Your task to perform on an android device: set an alarm Image 0: 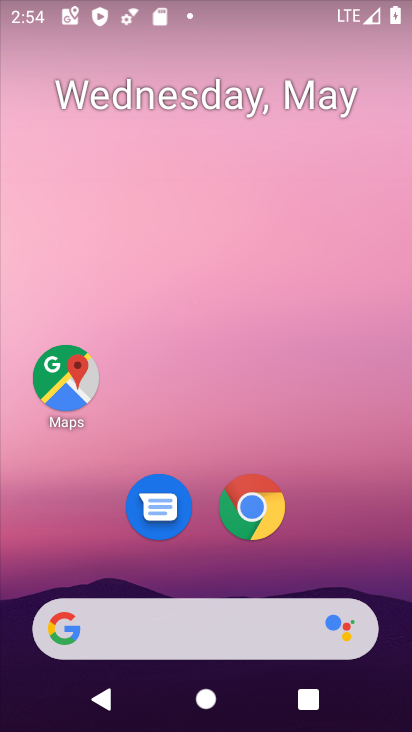
Step 0: drag from (339, 561) to (201, 153)
Your task to perform on an android device: set an alarm Image 1: 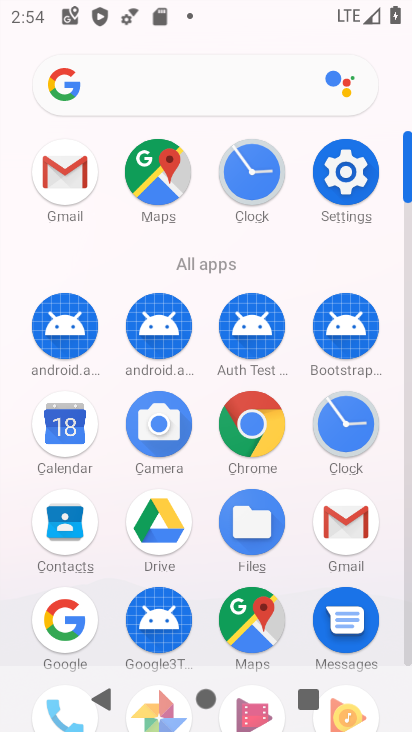
Step 1: click (252, 169)
Your task to perform on an android device: set an alarm Image 2: 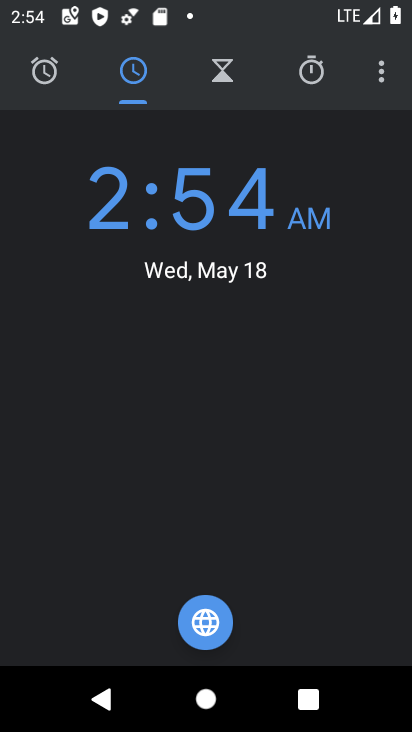
Step 2: click (45, 77)
Your task to perform on an android device: set an alarm Image 3: 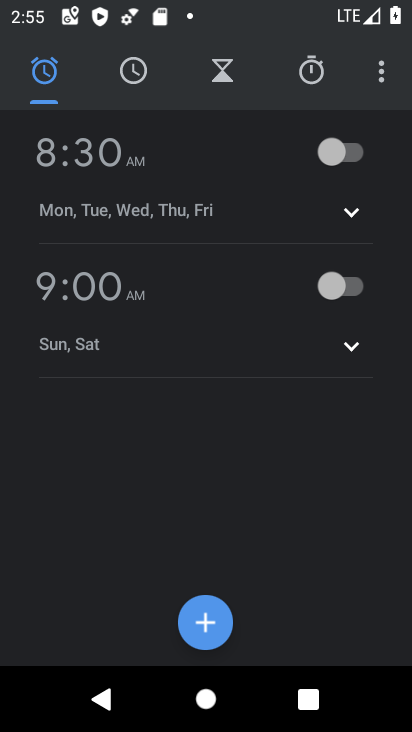
Step 3: click (208, 620)
Your task to perform on an android device: set an alarm Image 4: 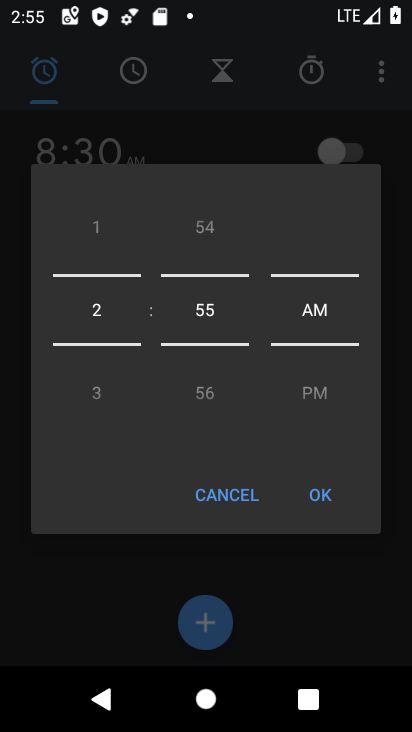
Step 4: drag from (98, 319) to (149, 206)
Your task to perform on an android device: set an alarm Image 5: 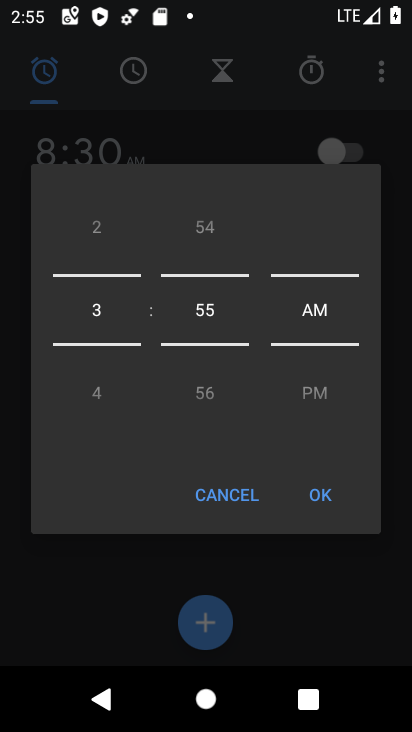
Step 5: drag from (90, 331) to (102, 211)
Your task to perform on an android device: set an alarm Image 6: 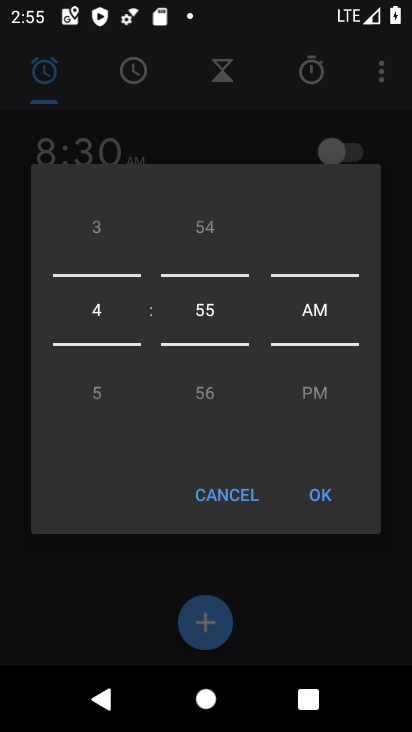
Step 6: drag from (210, 240) to (249, 435)
Your task to perform on an android device: set an alarm Image 7: 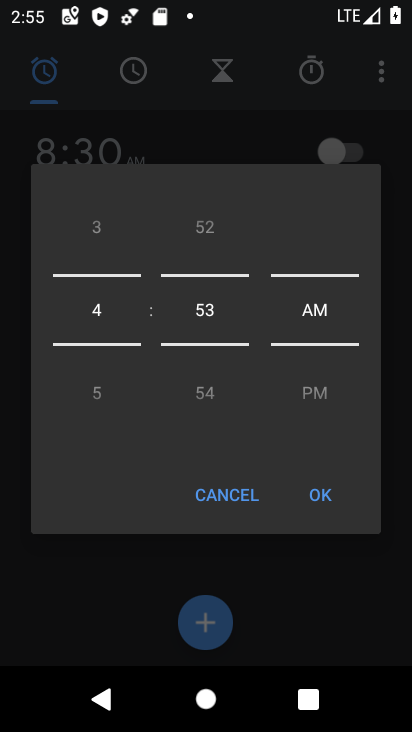
Step 7: drag from (337, 318) to (331, 208)
Your task to perform on an android device: set an alarm Image 8: 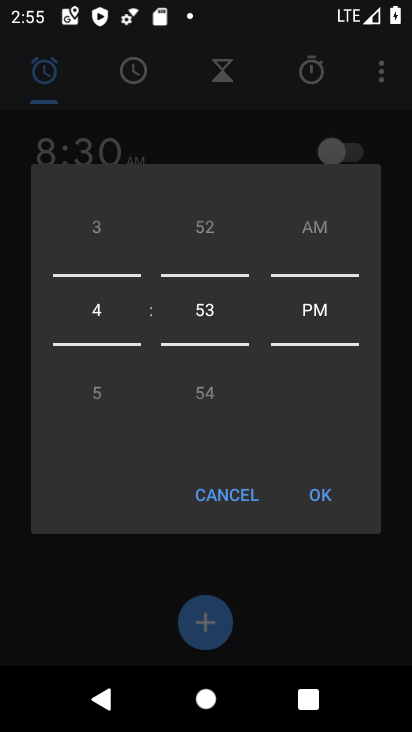
Step 8: click (319, 496)
Your task to perform on an android device: set an alarm Image 9: 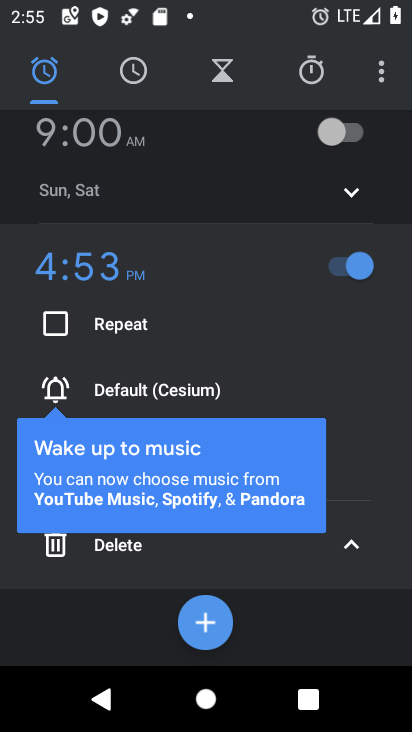
Step 9: click (351, 546)
Your task to perform on an android device: set an alarm Image 10: 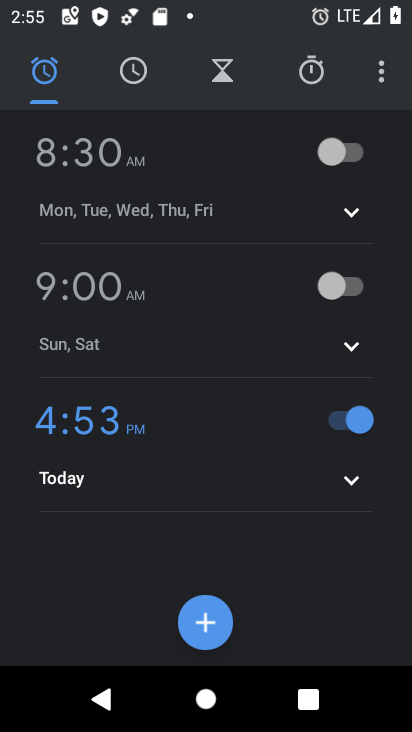
Step 10: task complete